Your task to perform on an android device: delete the emails in spam in the gmail app Image 0: 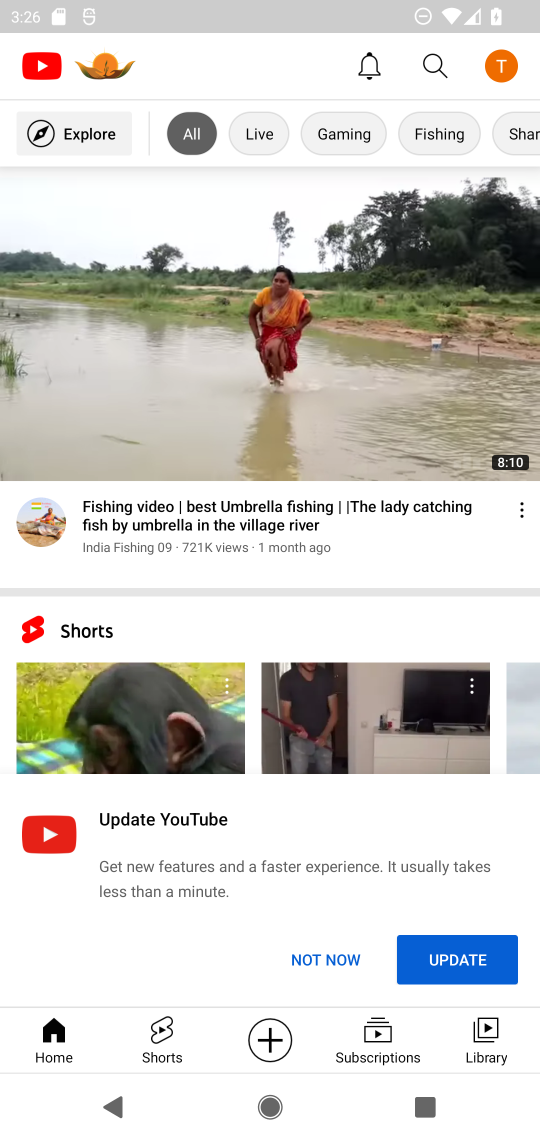
Step 0: press home button
Your task to perform on an android device: delete the emails in spam in the gmail app Image 1: 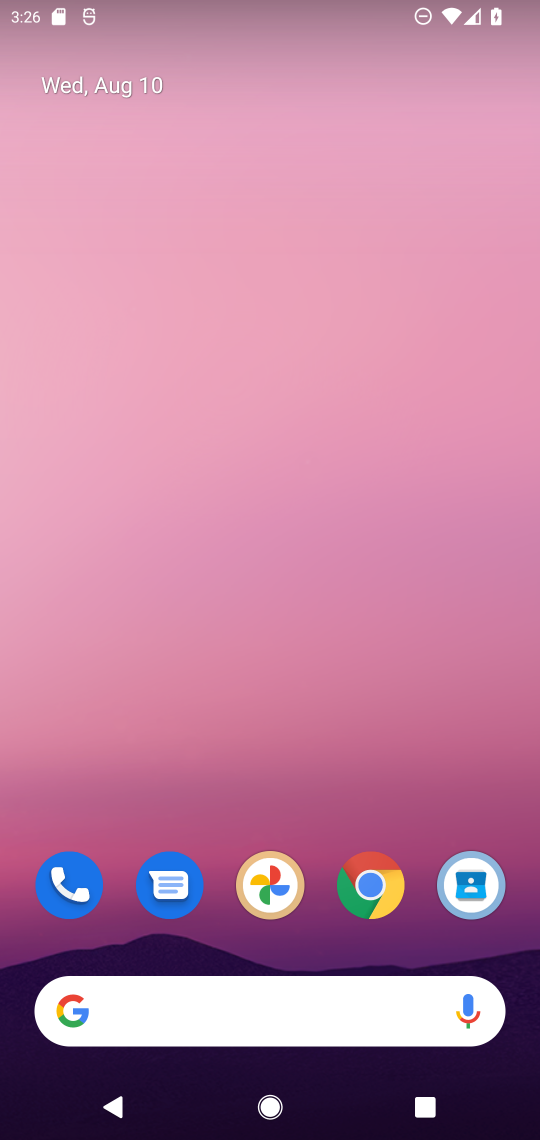
Step 1: drag from (317, 803) to (287, 67)
Your task to perform on an android device: delete the emails in spam in the gmail app Image 2: 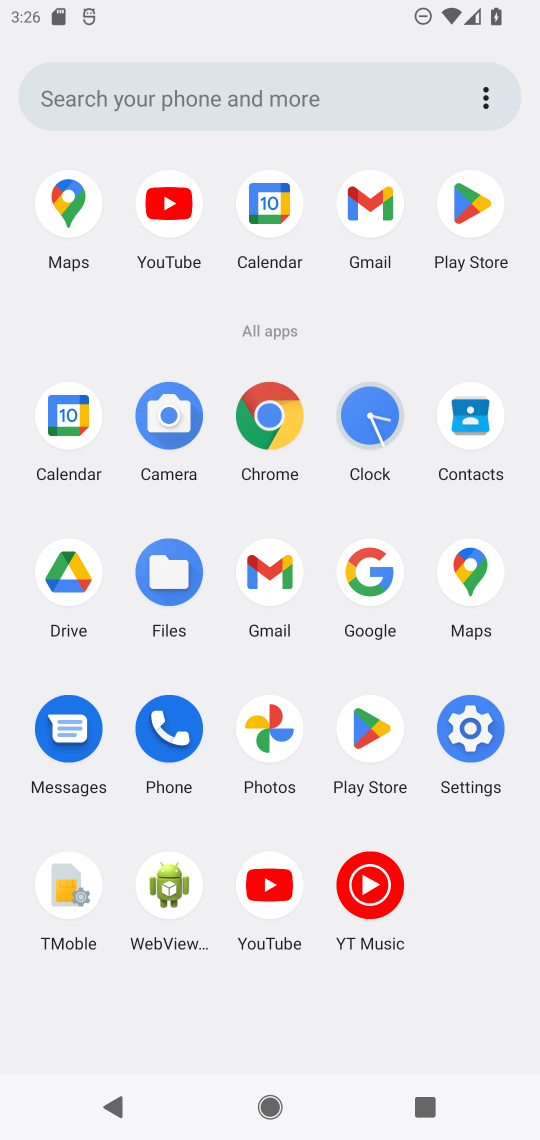
Step 2: click (361, 207)
Your task to perform on an android device: delete the emails in spam in the gmail app Image 3: 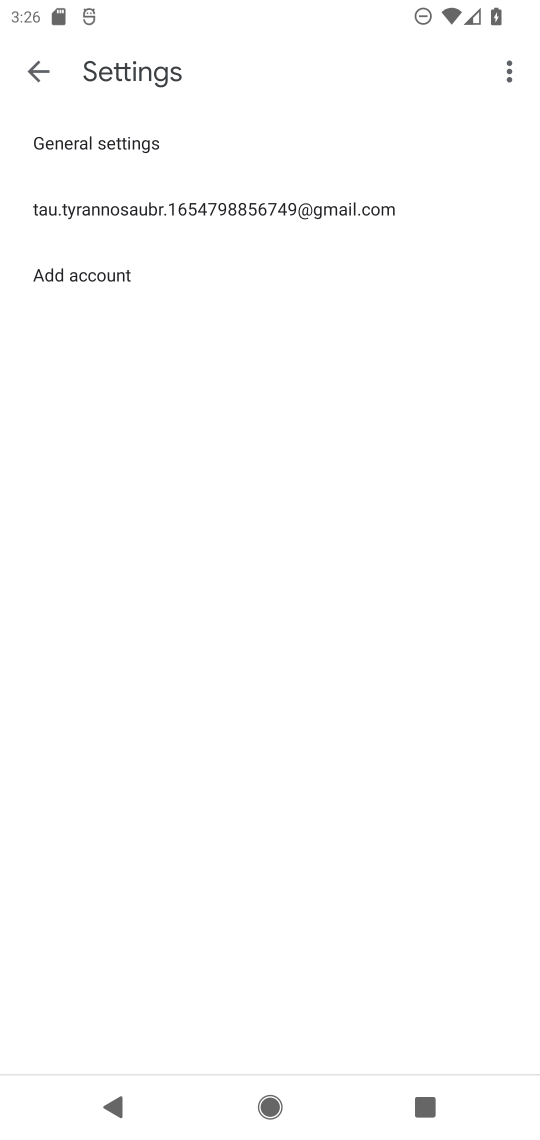
Step 3: click (34, 70)
Your task to perform on an android device: delete the emails in spam in the gmail app Image 4: 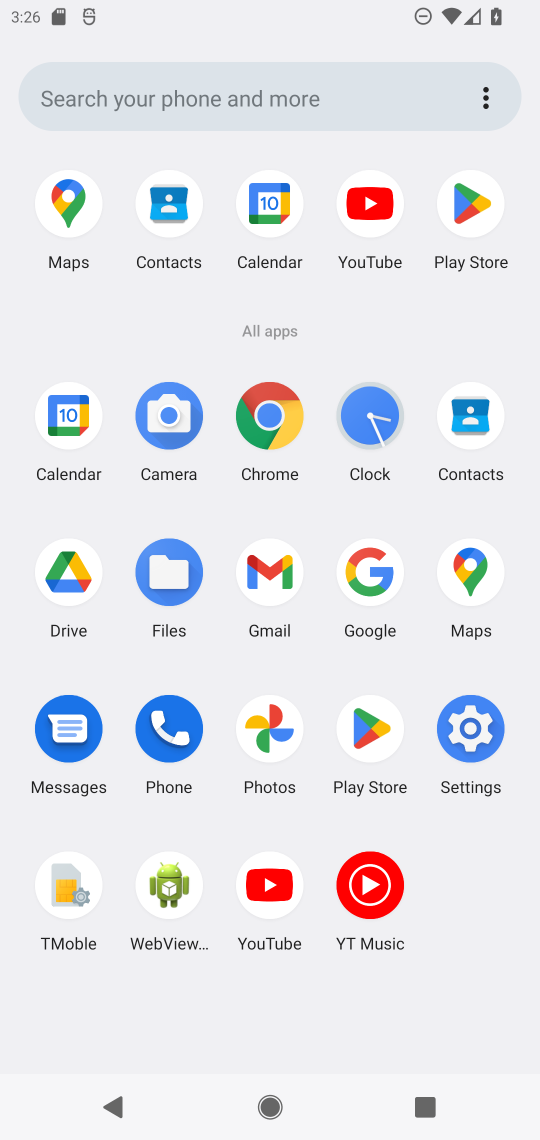
Step 4: click (268, 574)
Your task to perform on an android device: delete the emails in spam in the gmail app Image 5: 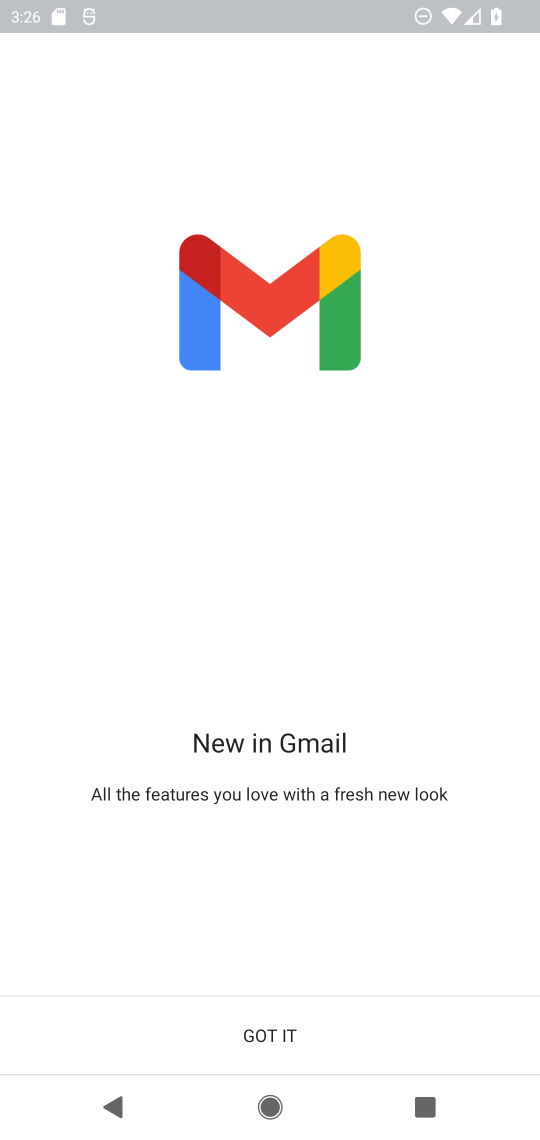
Step 5: click (269, 1031)
Your task to perform on an android device: delete the emails in spam in the gmail app Image 6: 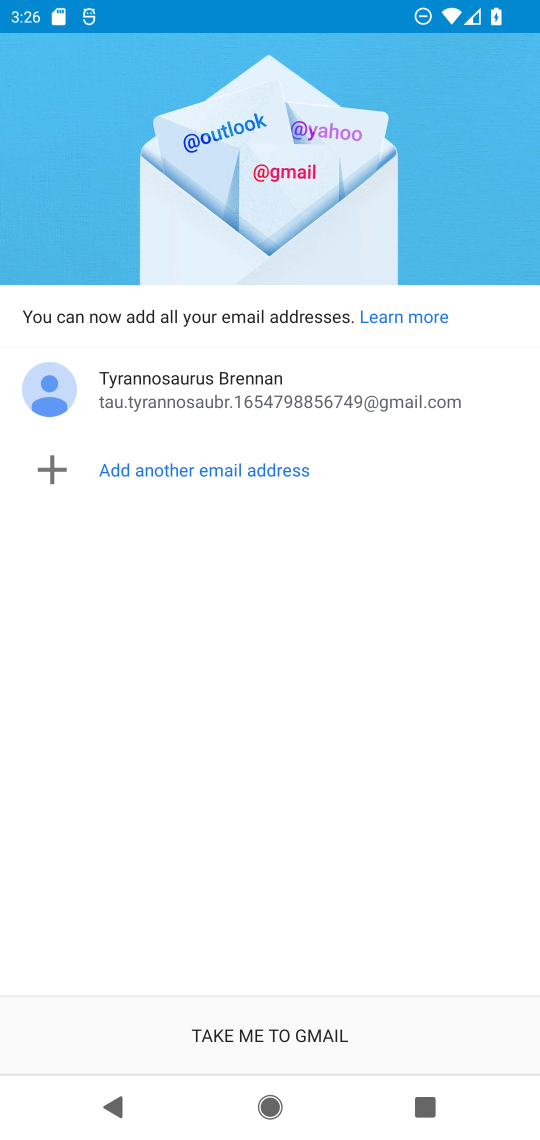
Step 6: task complete